Your task to perform on an android device: Open calendar and show me the first week of next month Image 0: 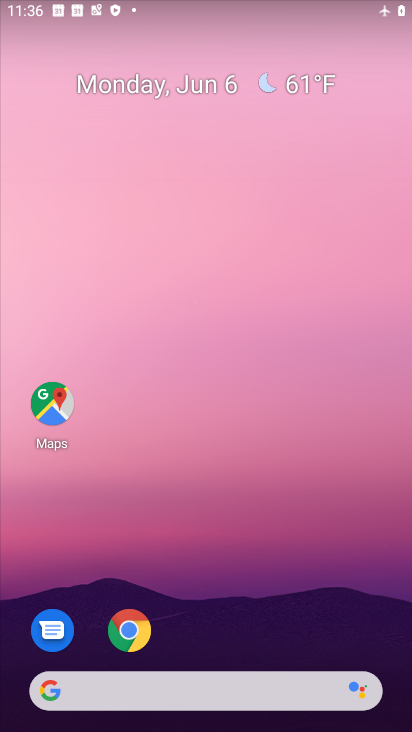
Step 0: drag from (338, 391) to (339, 115)
Your task to perform on an android device: Open calendar and show me the first week of next month Image 1: 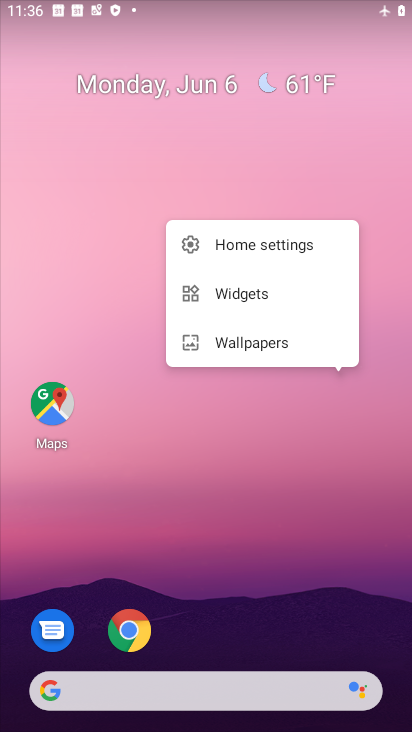
Step 1: drag from (299, 591) to (306, 100)
Your task to perform on an android device: Open calendar and show me the first week of next month Image 2: 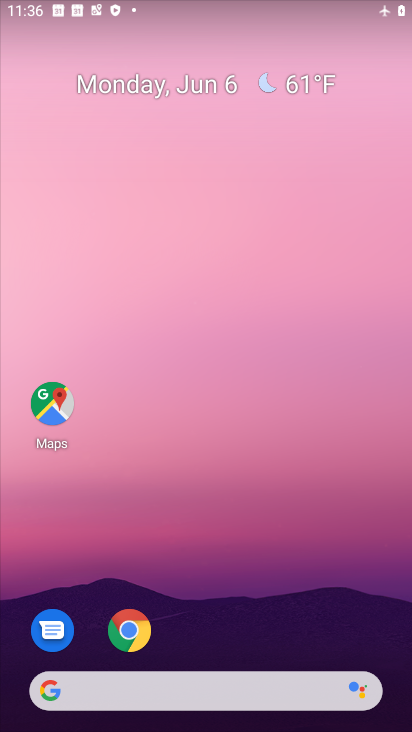
Step 2: drag from (304, 631) to (326, 66)
Your task to perform on an android device: Open calendar and show me the first week of next month Image 3: 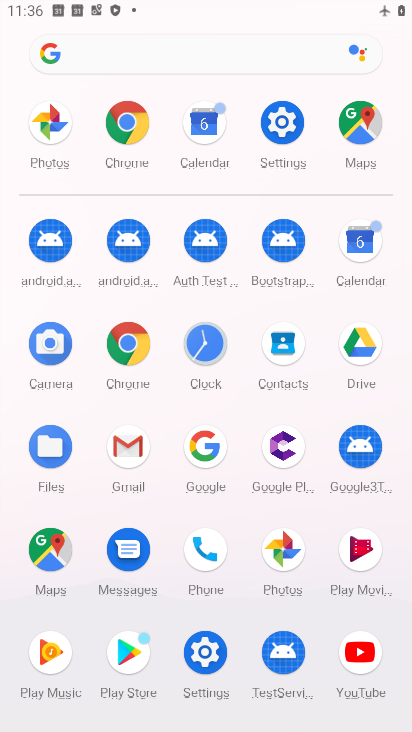
Step 3: click (353, 256)
Your task to perform on an android device: Open calendar and show me the first week of next month Image 4: 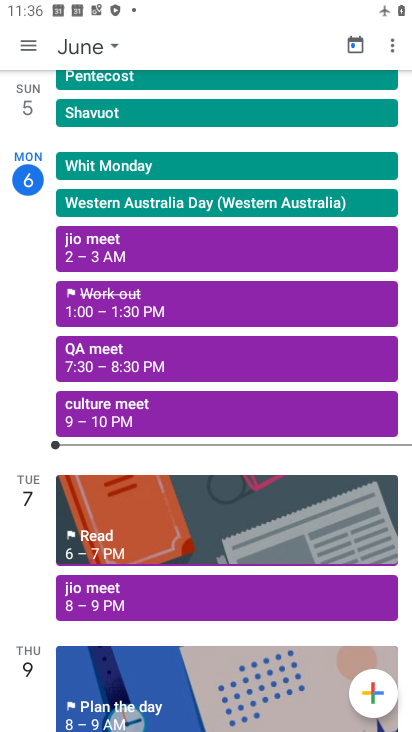
Step 4: click (95, 44)
Your task to perform on an android device: Open calendar and show me the first week of next month Image 5: 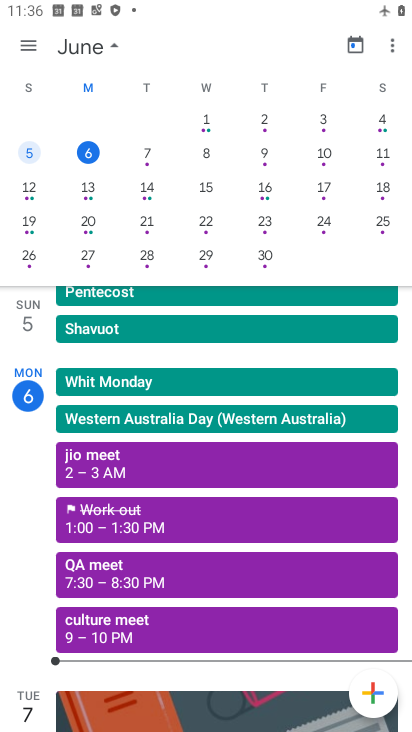
Step 5: task complete